Your task to perform on an android device: Set the phone to "Do not disturb". Image 0: 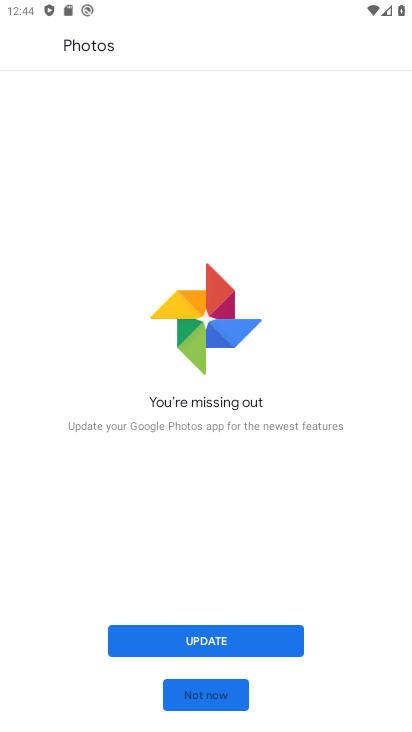
Step 0: press home button
Your task to perform on an android device: Set the phone to "Do not disturb". Image 1: 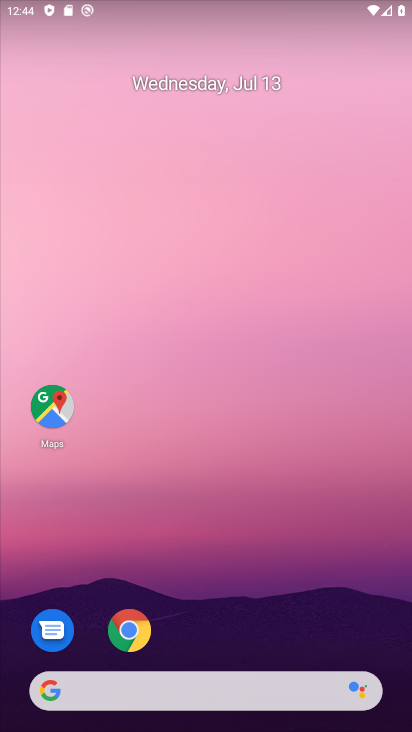
Step 1: drag from (88, 613) to (332, 87)
Your task to perform on an android device: Set the phone to "Do not disturb". Image 2: 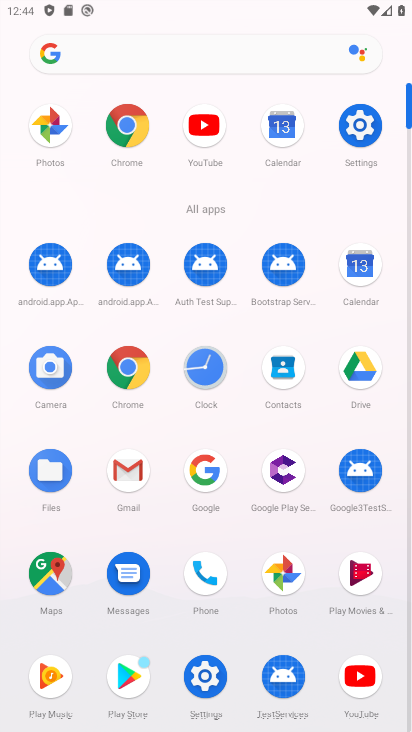
Step 2: click (199, 682)
Your task to perform on an android device: Set the phone to "Do not disturb". Image 3: 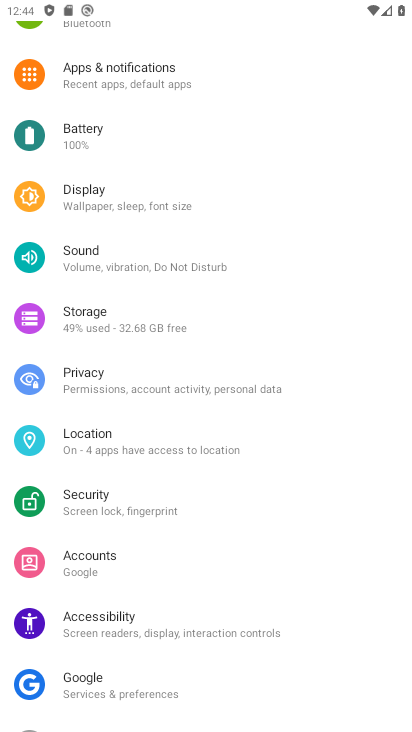
Step 3: click (167, 240)
Your task to perform on an android device: Set the phone to "Do not disturb". Image 4: 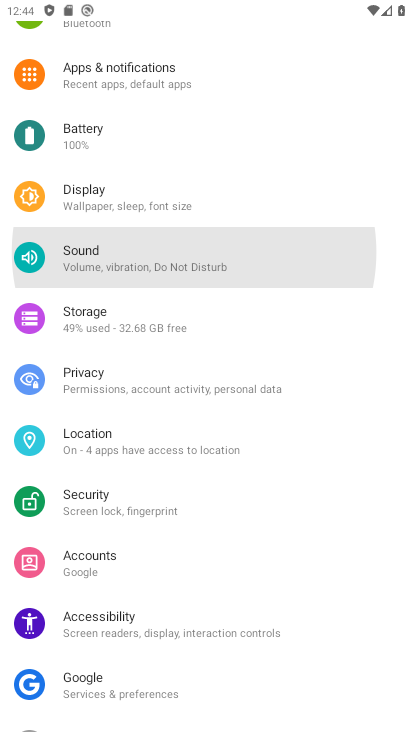
Step 4: click (157, 265)
Your task to perform on an android device: Set the phone to "Do not disturb". Image 5: 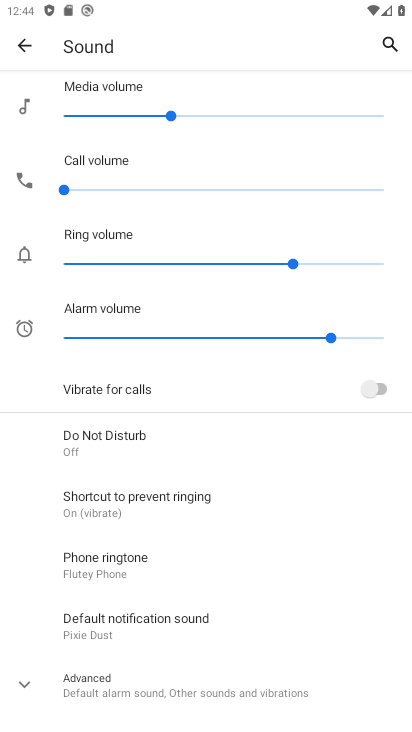
Step 5: click (146, 450)
Your task to perform on an android device: Set the phone to "Do not disturb". Image 6: 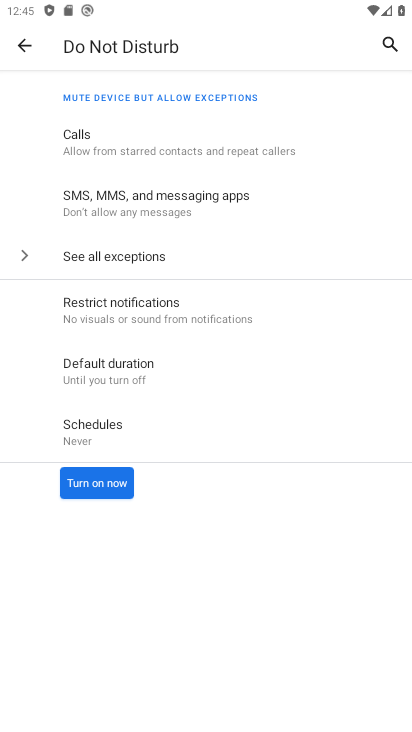
Step 6: task complete